Your task to perform on an android device: manage bookmarks in the chrome app Image 0: 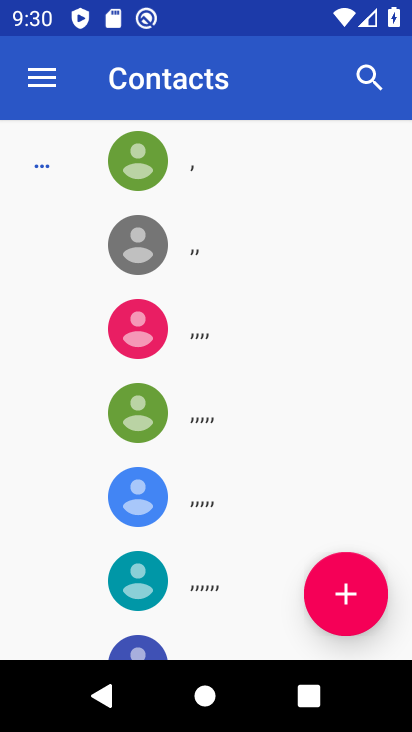
Step 0: press back button
Your task to perform on an android device: manage bookmarks in the chrome app Image 1: 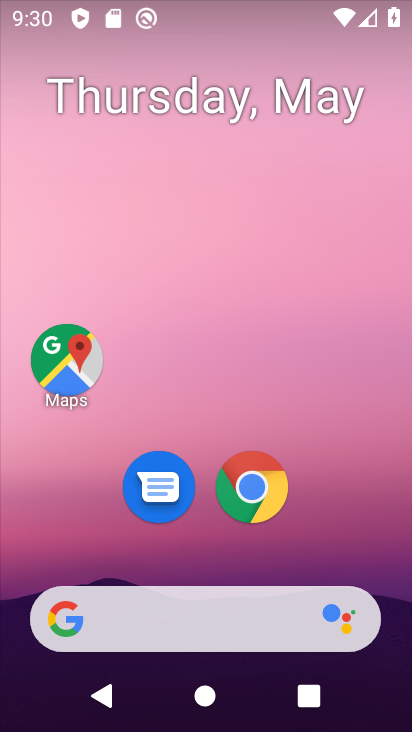
Step 1: click (247, 486)
Your task to perform on an android device: manage bookmarks in the chrome app Image 2: 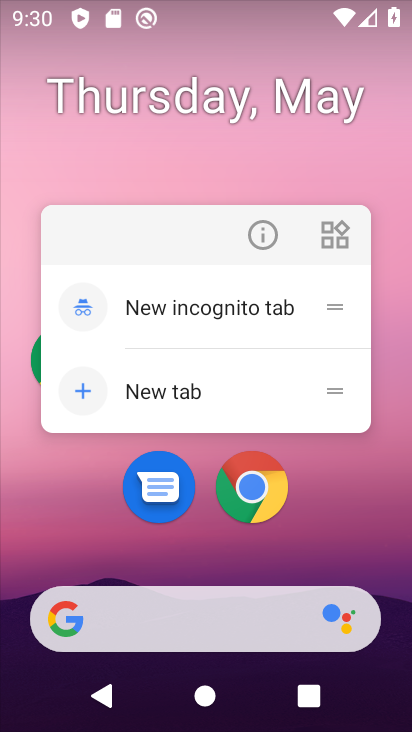
Step 2: click (247, 488)
Your task to perform on an android device: manage bookmarks in the chrome app Image 3: 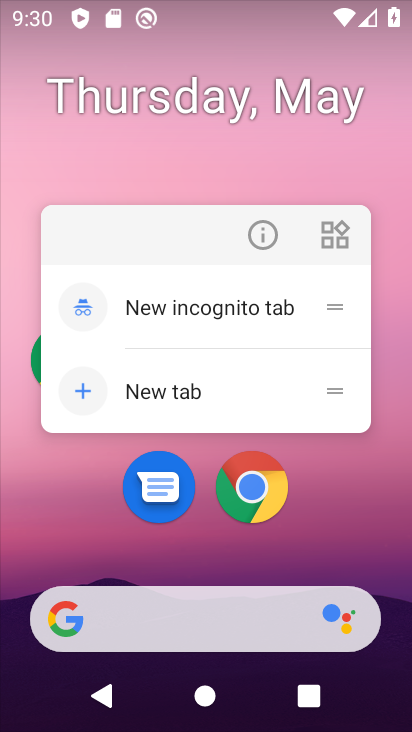
Step 3: click (249, 480)
Your task to perform on an android device: manage bookmarks in the chrome app Image 4: 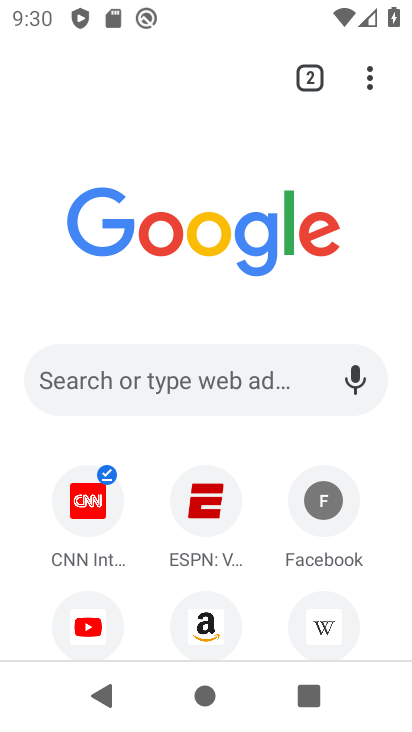
Step 4: task complete